Your task to perform on an android device: Go to Google maps Image 0: 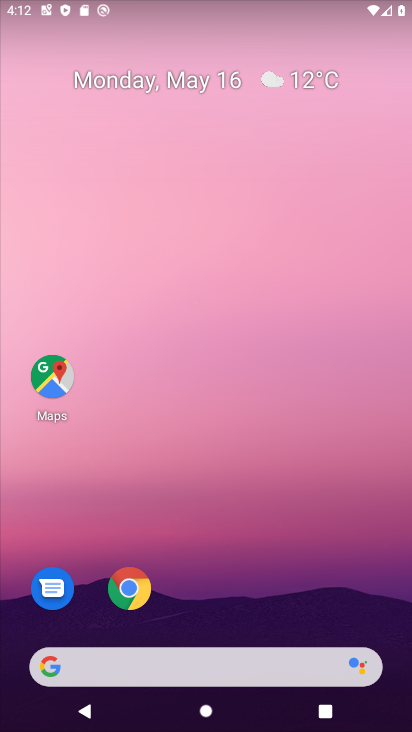
Step 0: click (58, 377)
Your task to perform on an android device: Go to Google maps Image 1: 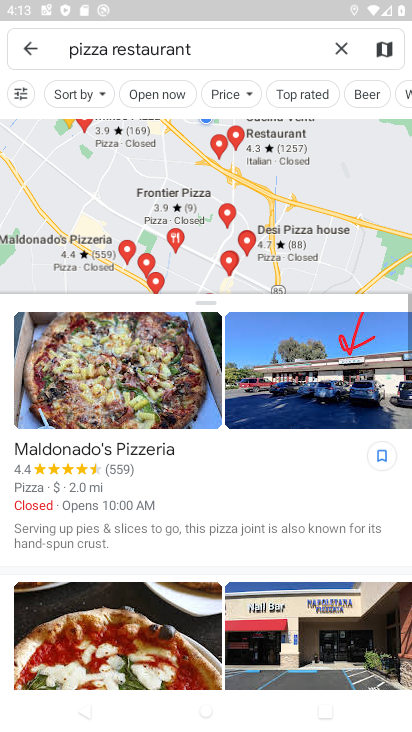
Step 1: task complete